Your task to perform on an android device: change text size in settings app Image 0: 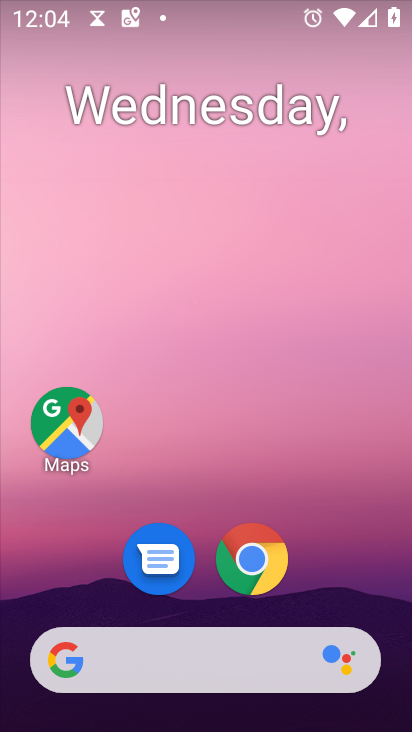
Step 0: drag from (358, 560) to (327, 0)
Your task to perform on an android device: change text size in settings app Image 1: 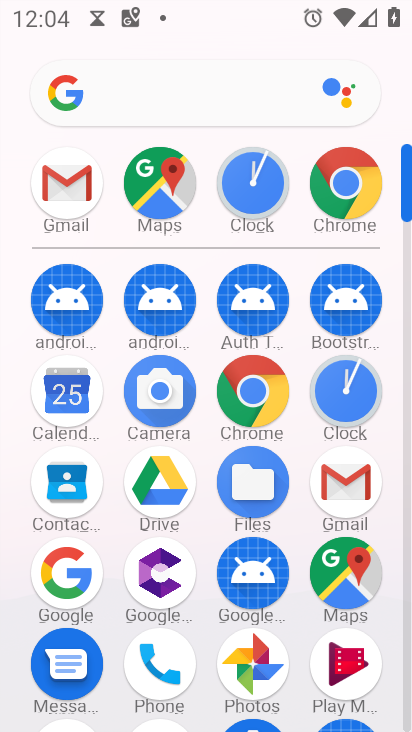
Step 1: drag from (377, 394) to (403, 140)
Your task to perform on an android device: change text size in settings app Image 2: 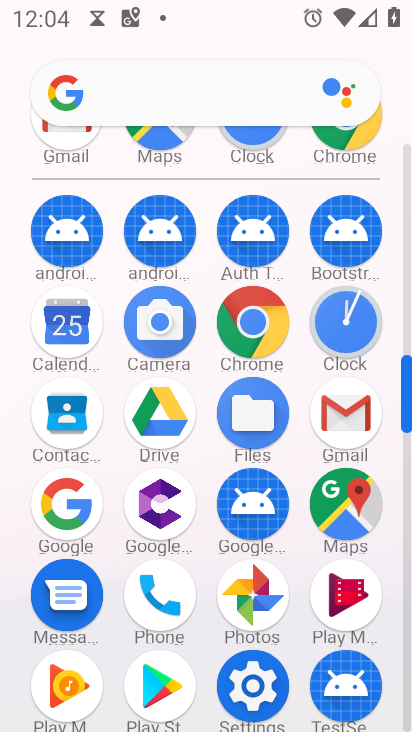
Step 2: click (253, 678)
Your task to perform on an android device: change text size in settings app Image 3: 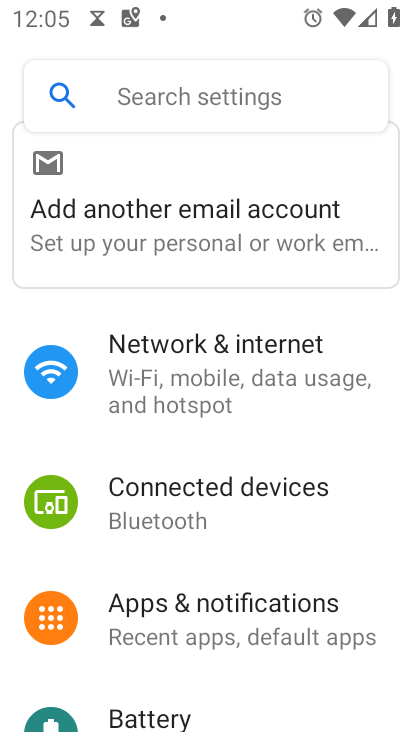
Step 3: drag from (220, 599) to (215, 245)
Your task to perform on an android device: change text size in settings app Image 4: 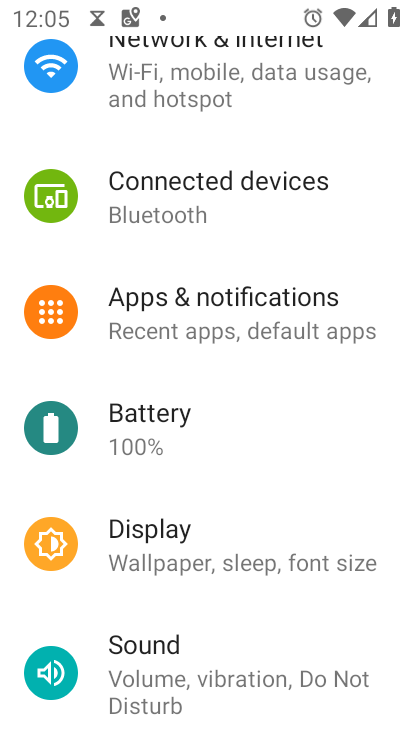
Step 4: drag from (237, 171) to (260, 463)
Your task to perform on an android device: change text size in settings app Image 5: 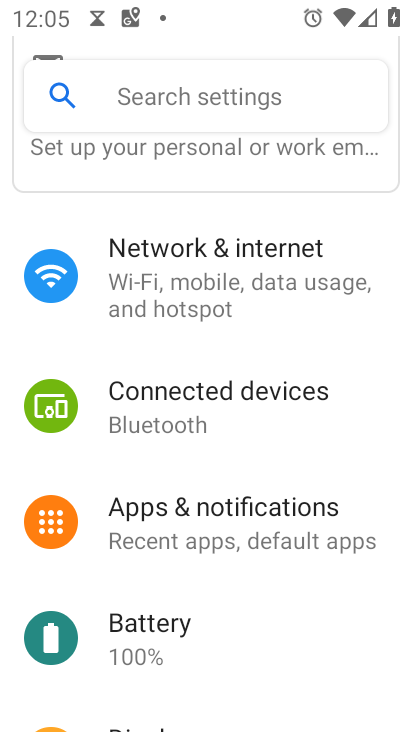
Step 5: drag from (280, 592) to (313, 143)
Your task to perform on an android device: change text size in settings app Image 6: 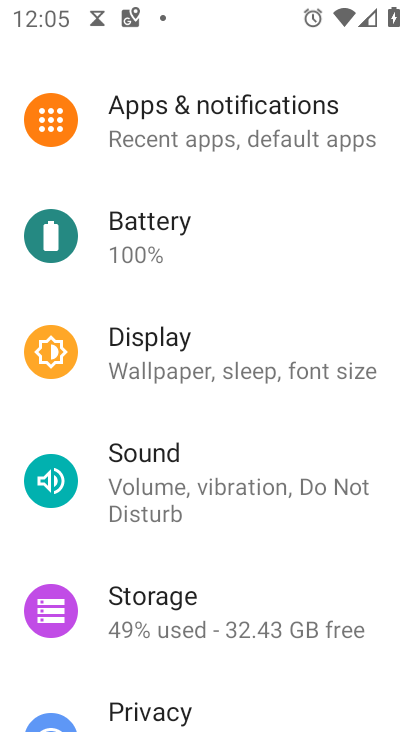
Step 6: click (275, 388)
Your task to perform on an android device: change text size in settings app Image 7: 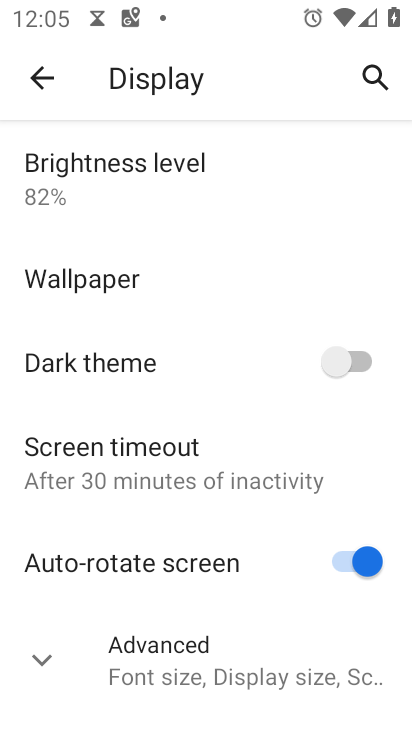
Step 7: drag from (231, 561) to (276, 110)
Your task to perform on an android device: change text size in settings app Image 8: 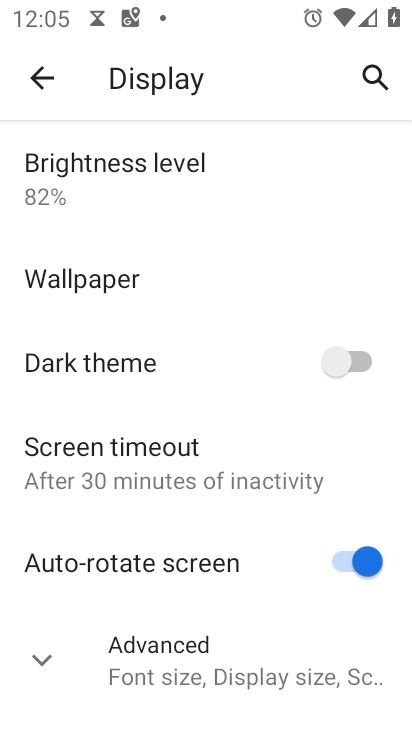
Step 8: click (241, 663)
Your task to perform on an android device: change text size in settings app Image 9: 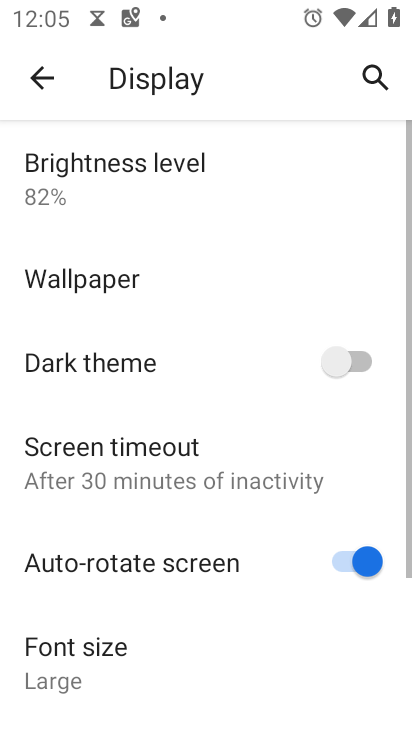
Step 9: drag from (250, 497) to (272, 198)
Your task to perform on an android device: change text size in settings app Image 10: 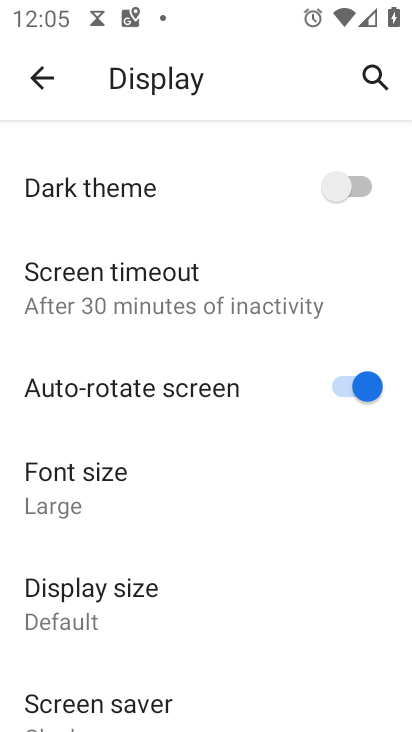
Step 10: click (28, 465)
Your task to perform on an android device: change text size in settings app Image 11: 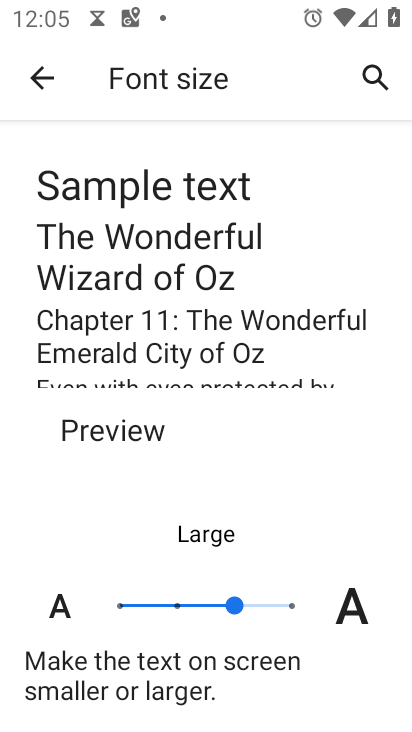
Step 11: click (208, 595)
Your task to perform on an android device: change text size in settings app Image 12: 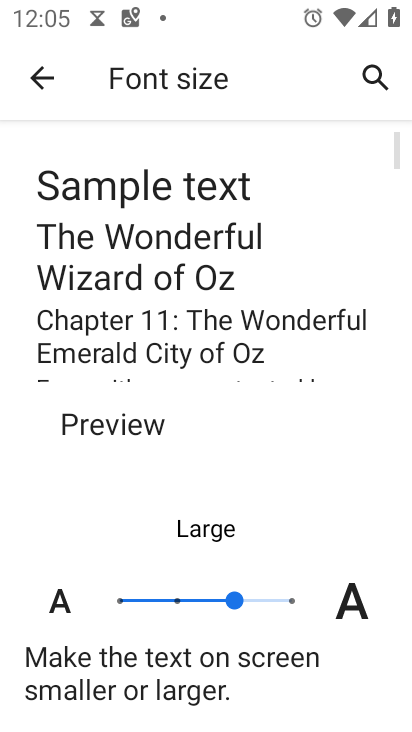
Step 12: click (234, 594)
Your task to perform on an android device: change text size in settings app Image 13: 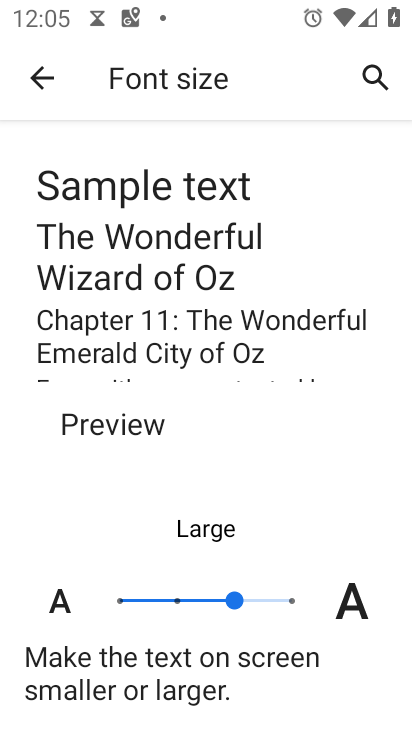
Step 13: task complete